Your task to perform on an android device: toggle airplane mode Image 0: 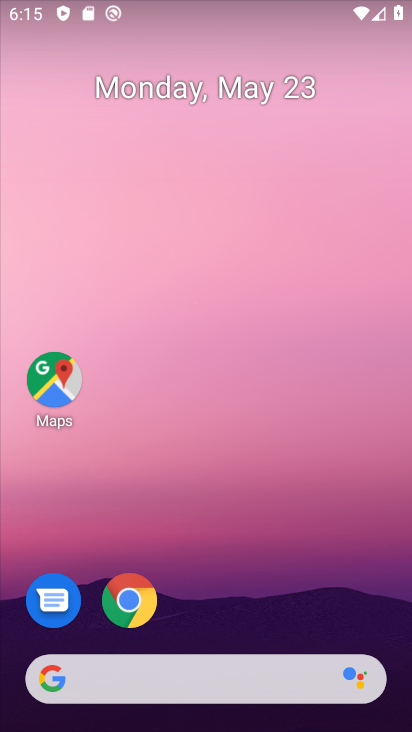
Step 0: drag from (221, 613) to (245, 193)
Your task to perform on an android device: toggle airplane mode Image 1: 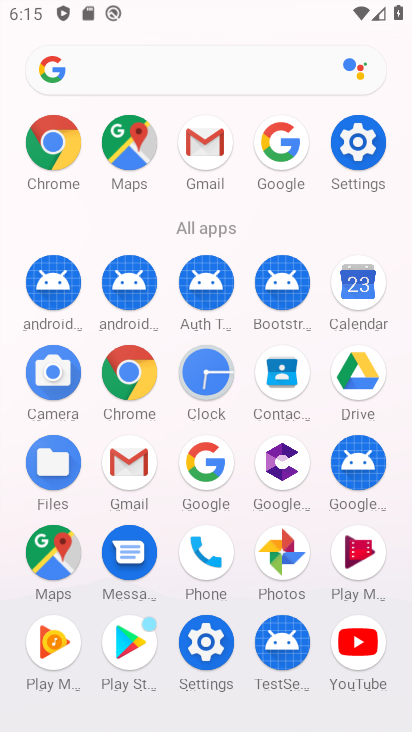
Step 1: click (340, 154)
Your task to perform on an android device: toggle airplane mode Image 2: 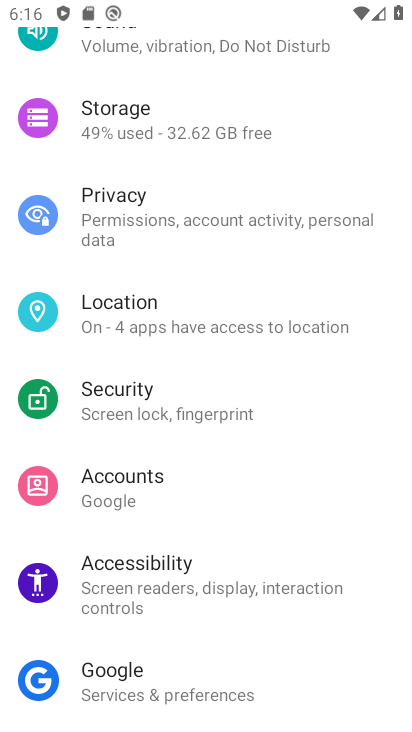
Step 2: drag from (240, 116) to (244, 575)
Your task to perform on an android device: toggle airplane mode Image 3: 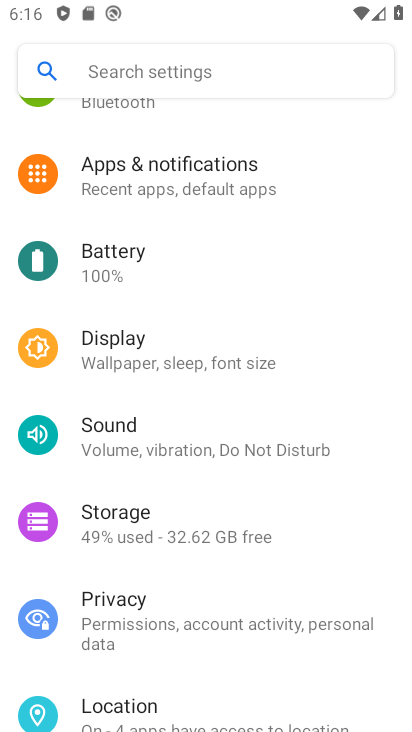
Step 3: drag from (245, 240) to (229, 623)
Your task to perform on an android device: toggle airplane mode Image 4: 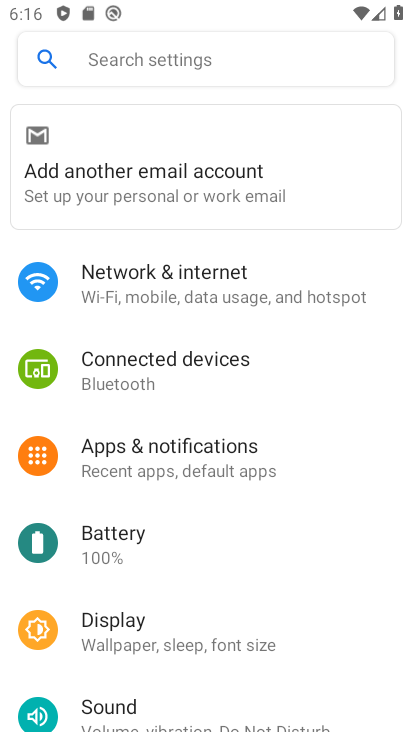
Step 4: click (252, 305)
Your task to perform on an android device: toggle airplane mode Image 5: 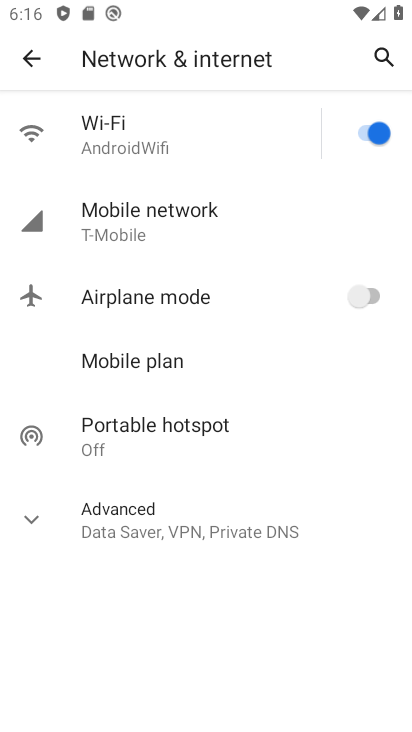
Step 5: click (372, 294)
Your task to perform on an android device: toggle airplane mode Image 6: 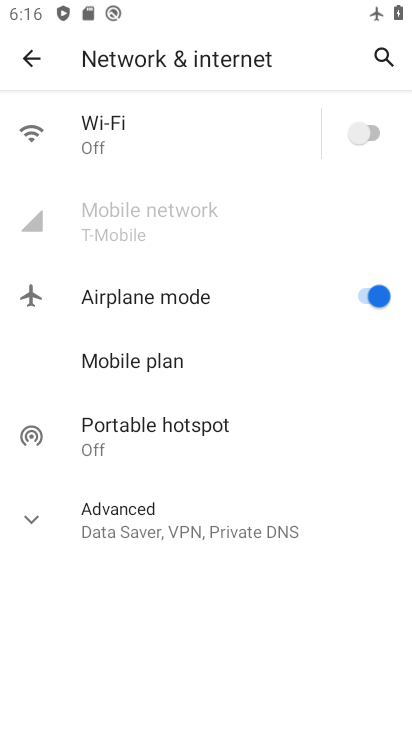
Step 6: task complete